Your task to perform on an android device: move a message to another label in the gmail app Image 0: 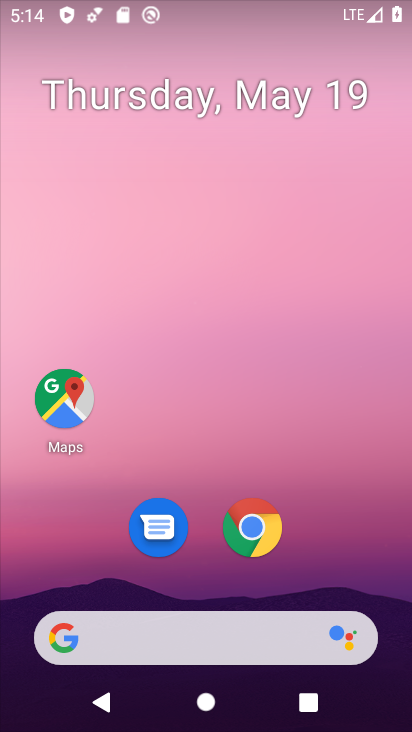
Step 0: drag from (326, 572) to (292, 246)
Your task to perform on an android device: move a message to another label in the gmail app Image 1: 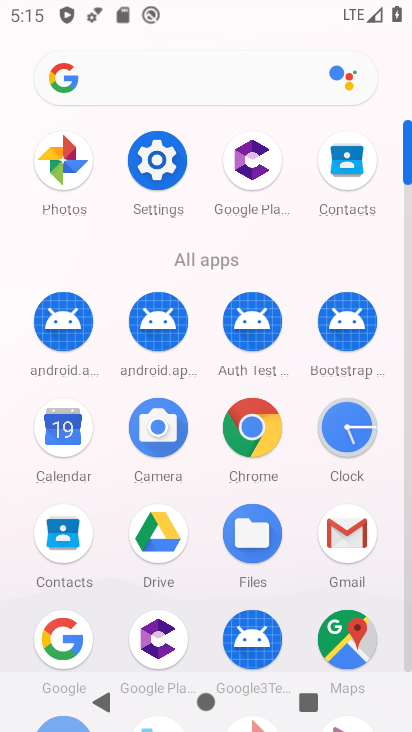
Step 1: click (343, 534)
Your task to perform on an android device: move a message to another label in the gmail app Image 2: 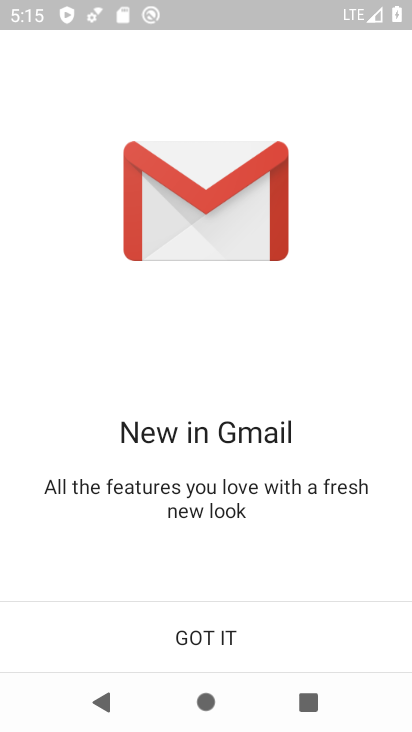
Step 2: click (215, 638)
Your task to perform on an android device: move a message to another label in the gmail app Image 3: 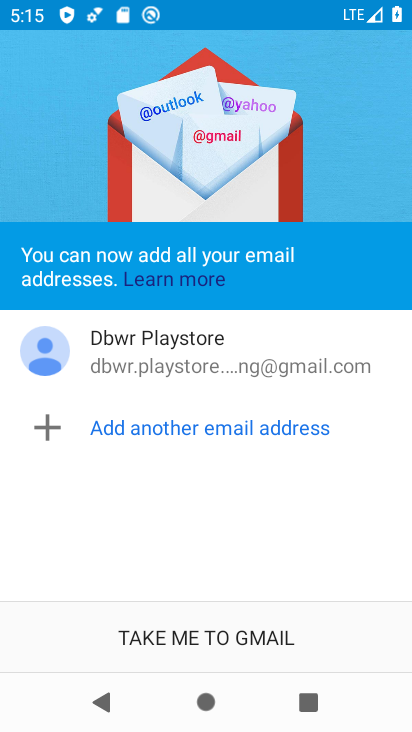
Step 3: click (215, 638)
Your task to perform on an android device: move a message to another label in the gmail app Image 4: 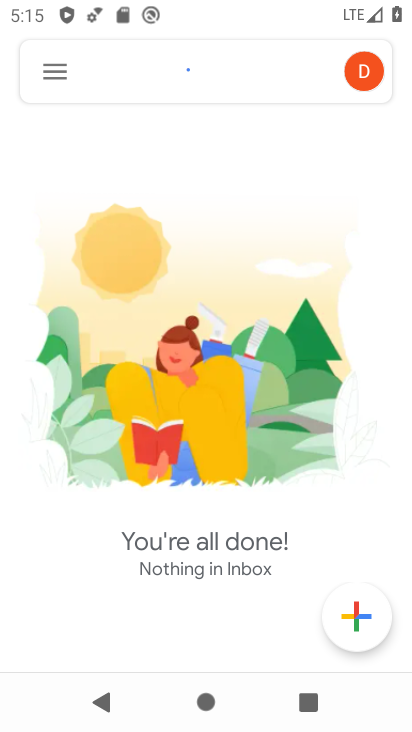
Step 4: click (47, 71)
Your task to perform on an android device: move a message to another label in the gmail app Image 5: 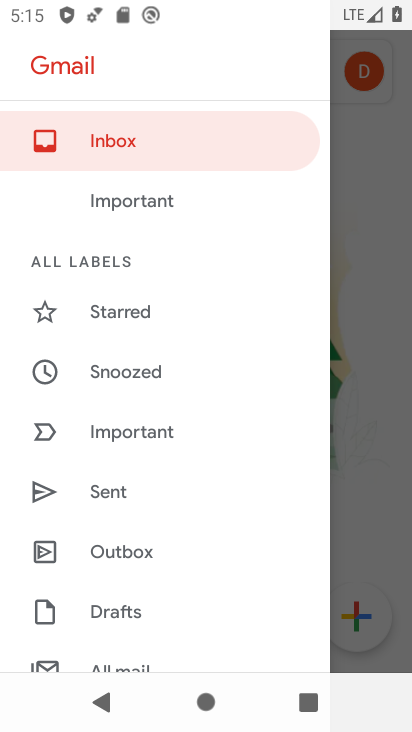
Step 5: drag from (138, 522) to (178, 451)
Your task to perform on an android device: move a message to another label in the gmail app Image 6: 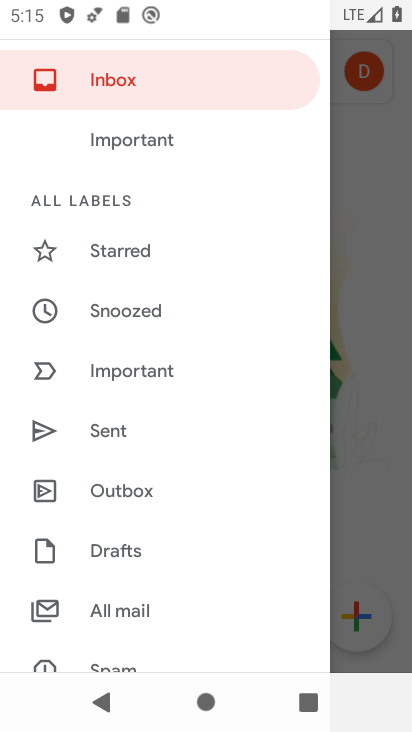
Step 6: click (134, 596)
Your task to perform on an android device: move a message to another label in the gmail app Image 7: 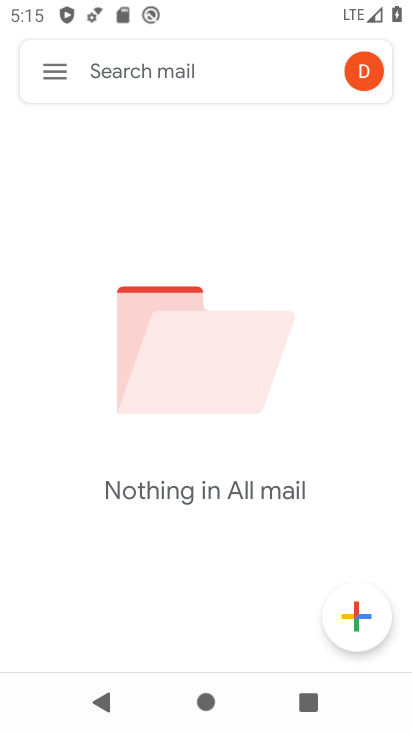
Step 7: task complete